Your task to perform on an android device: choose inbox layout in the gmail app Image 0: 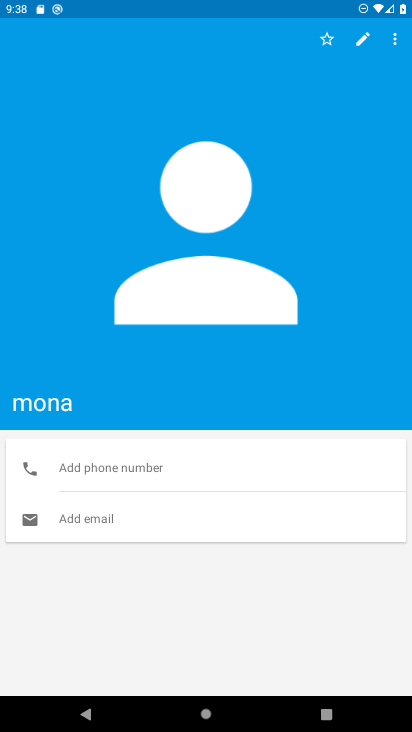
Step 0: press home button
Your task to perform on an android device: choose inbox layout in the gmail app Image 1: 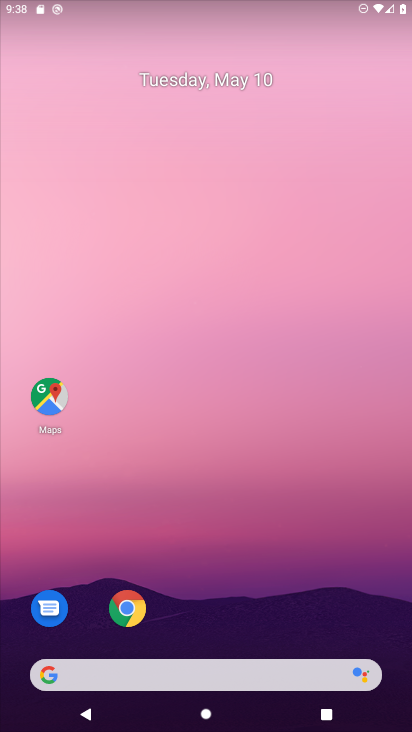
Step 1: drag from (364, 623) to (264, 4)
Your task to perform on an android device: choose inbox layout in the gmail app Image 2: 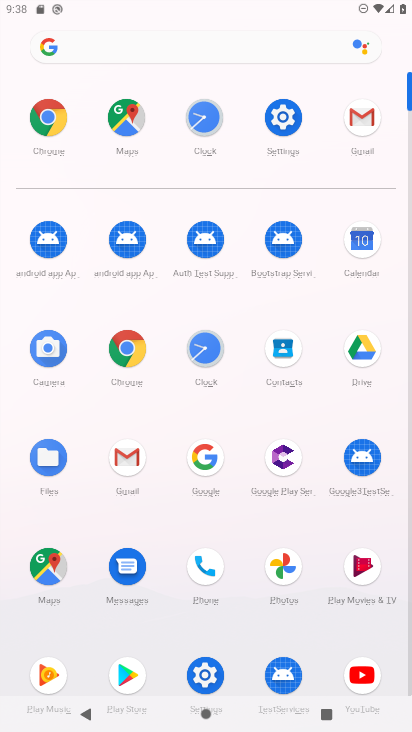
Step 2: click (118, 468)
Your task to perform on an android device: choose inbox layout in the gmail app Image 3: 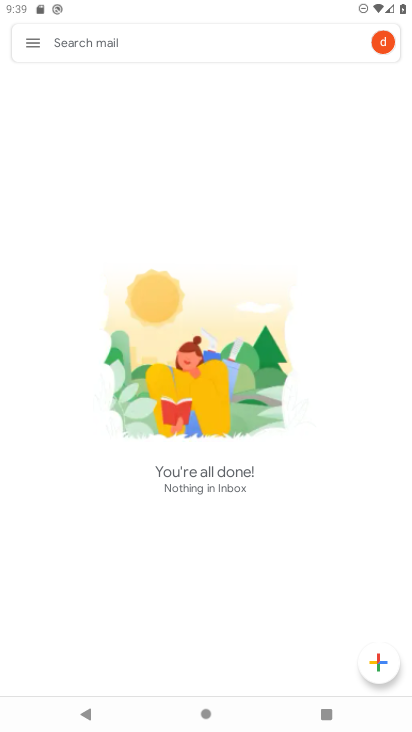
Step 3: task complete